Your task to perform on an android device: uninstall "Speedtest by Ookla" Image 0: 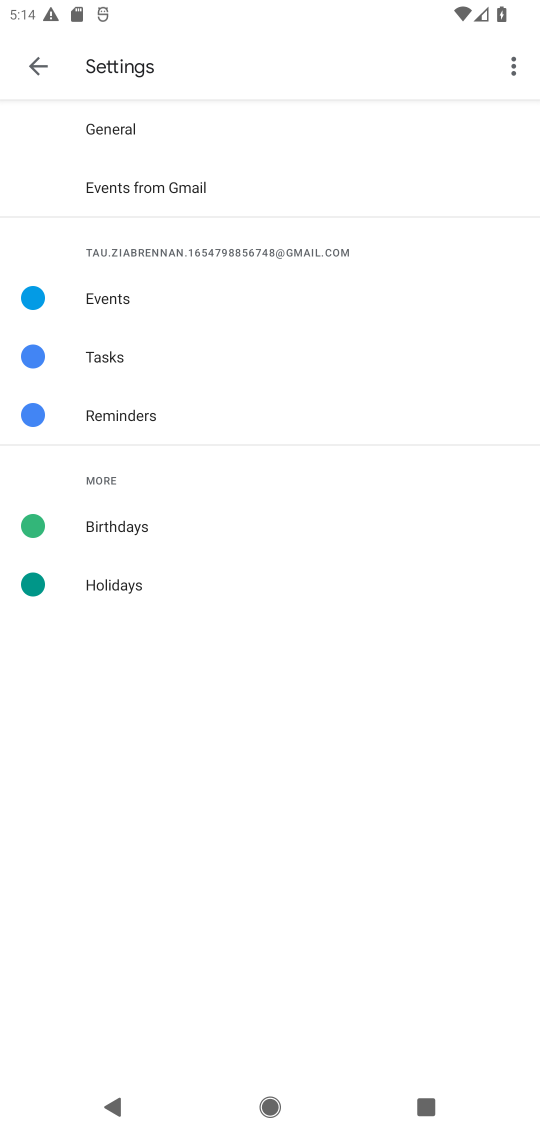
Step 0: press home button
Your task to perform on an android device: uninstall "Speedtest by Ookla" Image 1: 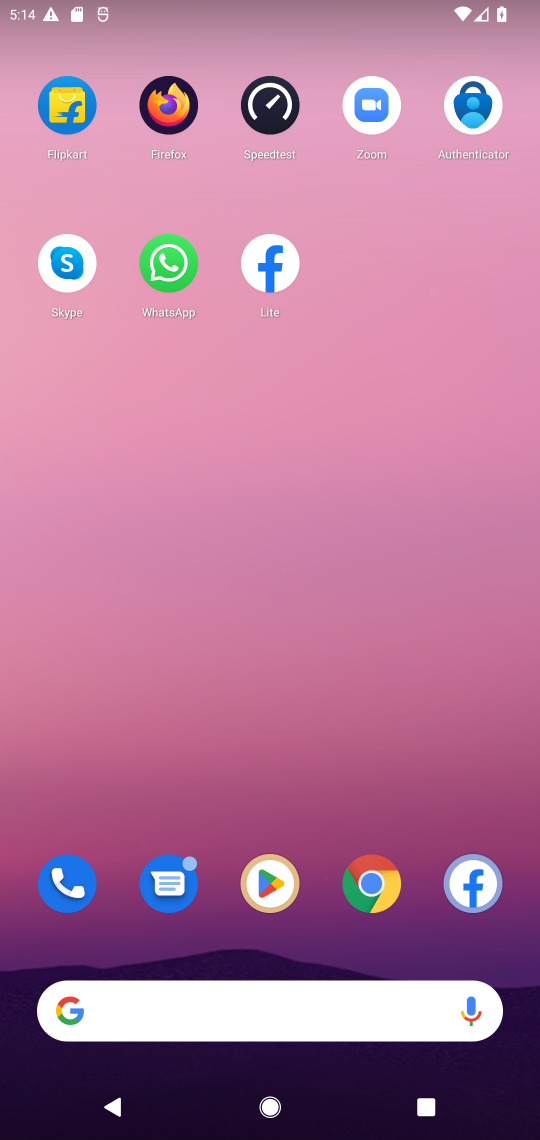
Step 1: drag from (246, 978) to (263, 220)
Your task to perform on an android device: uninstall "Speedtest by Ookla" Image 2: 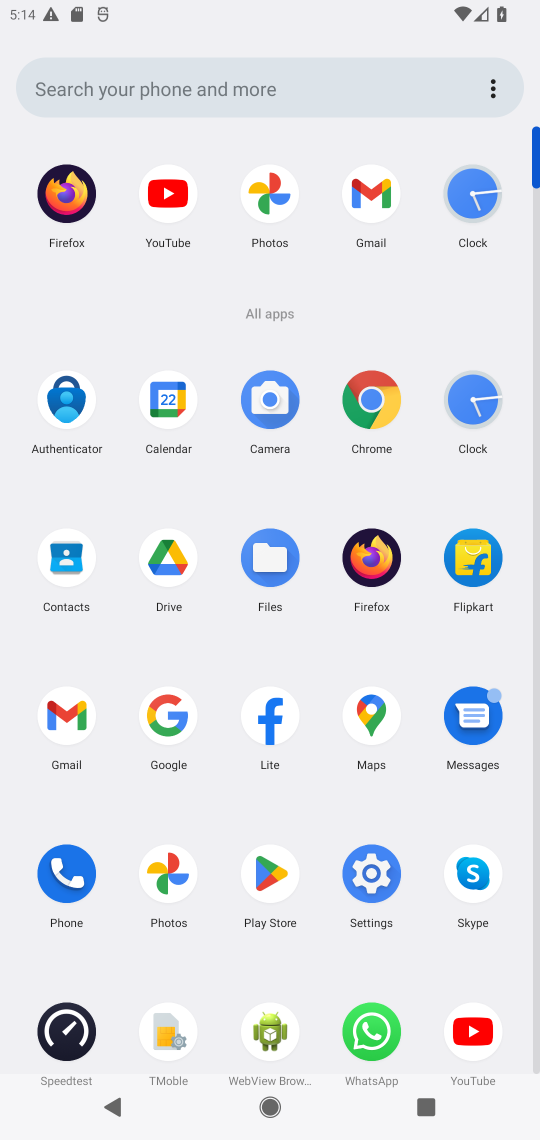
Step 2: click (268, 888)
Your task to perform on an android device: uninstall "Speedtest by Ookla" Image 3: 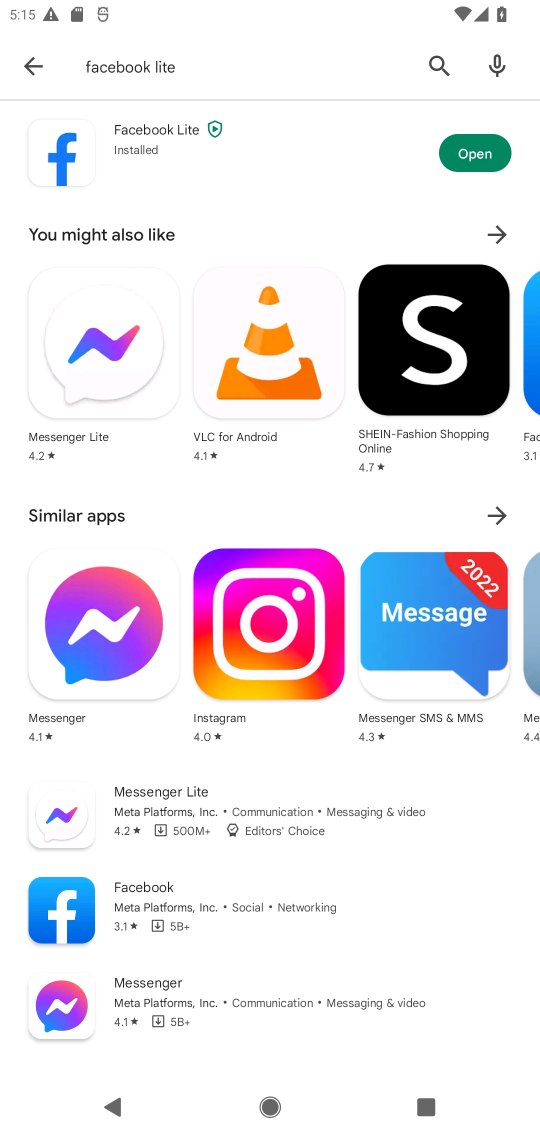
Step 3: click (437, 67)
Your task to perform on an android device: uninstall "Speedtest by Ookla" Image 4: 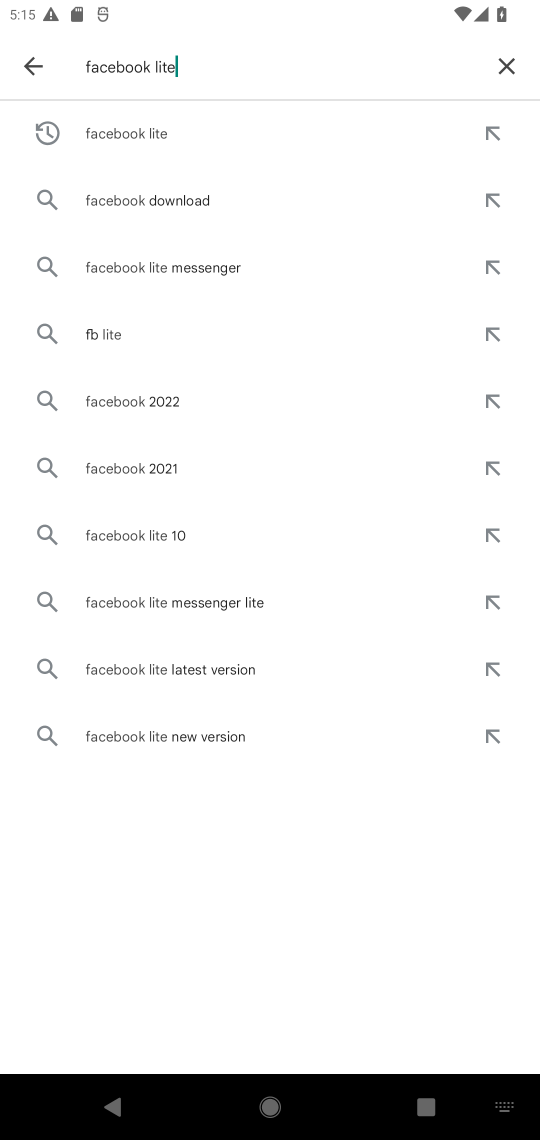
Step 4: click (510, 65)
Your task to perform on an android device: uninstall "Speedtest by Ookla" Image 5: 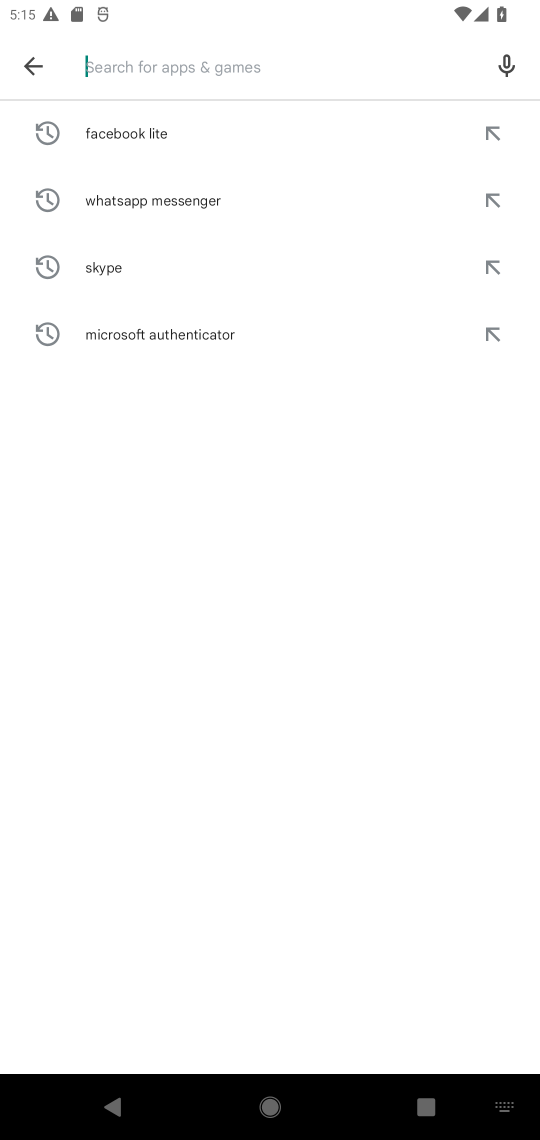
Step 5: type "Speedtest by Ookla"
Your task to perform on an android device: uninstall "Speedtest by Ookla" Image 6: 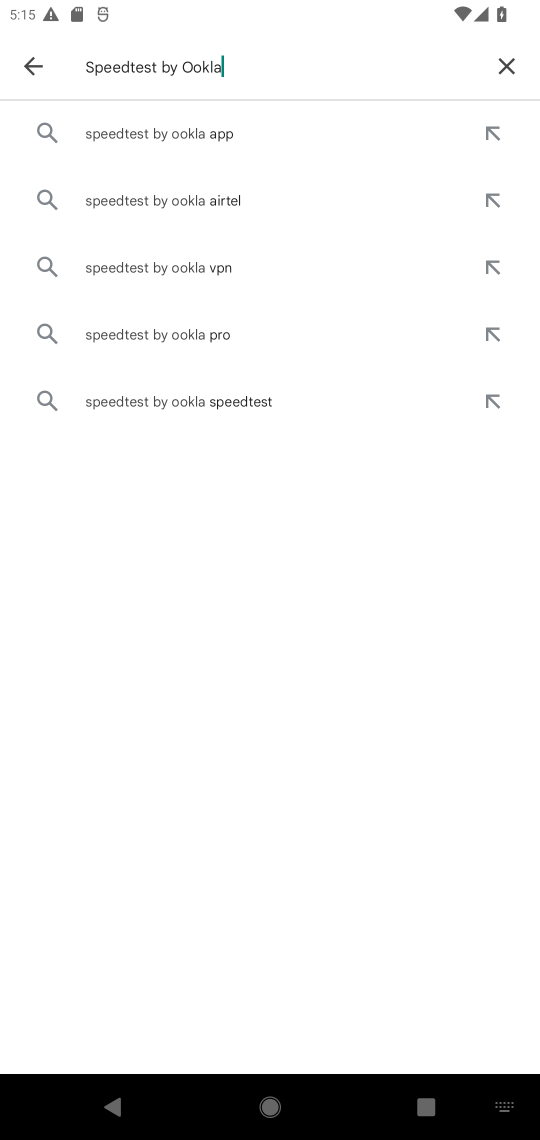
Step 6: click (176, 134)
Your task to perform on an android device: uninstall "Speedtest by Ookla" Image 7: 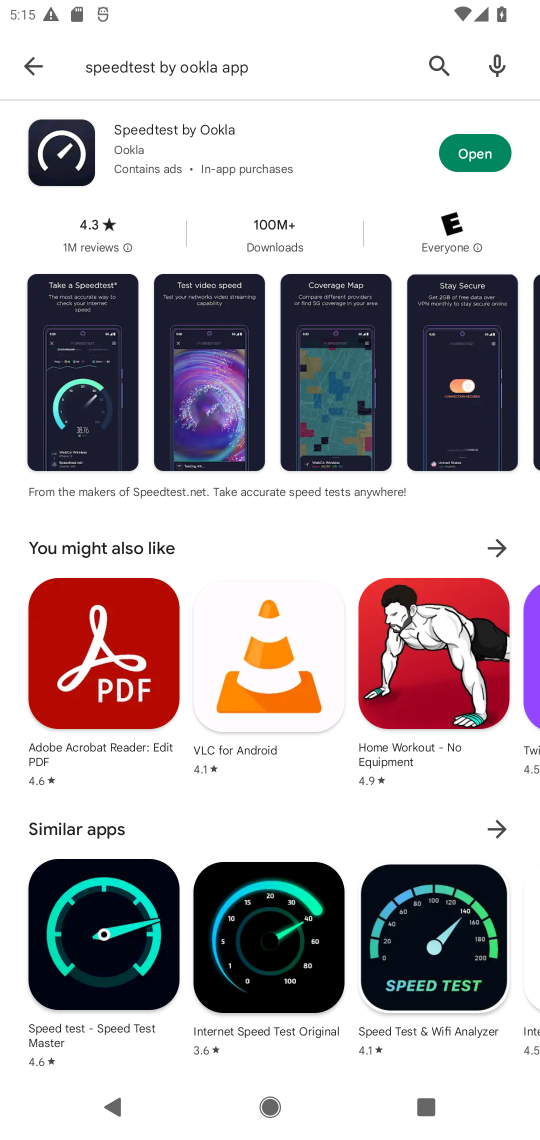
Step 7: click (253, 152)
Your task to perform on an android device: uninstall "Speedtest by Ookla" Image 8: 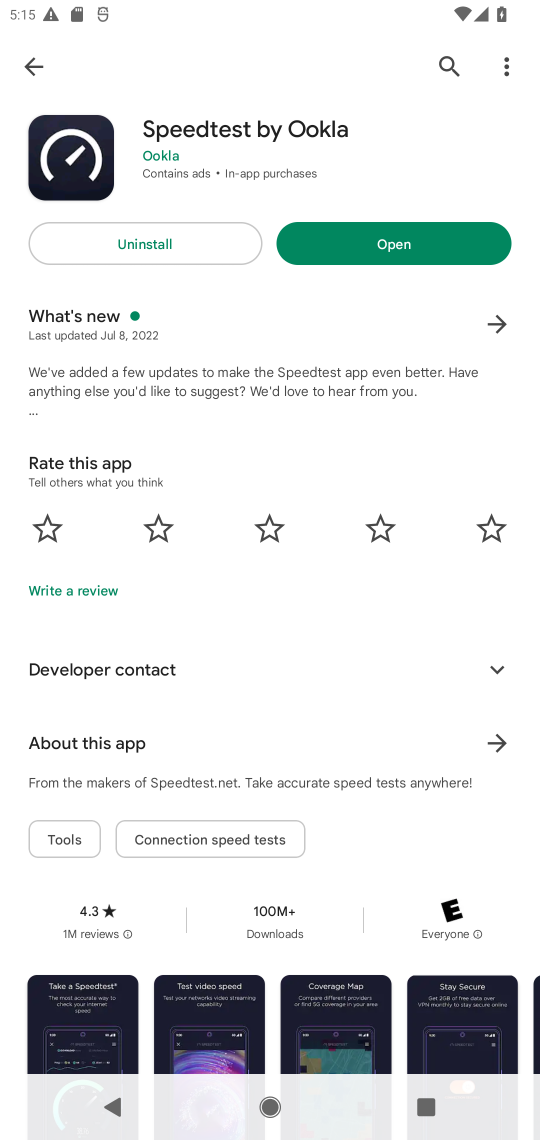
Step 8: click (139, 231)
Your task to perform on an android device: uninstall "Speedtest by Ookla" Image 9: 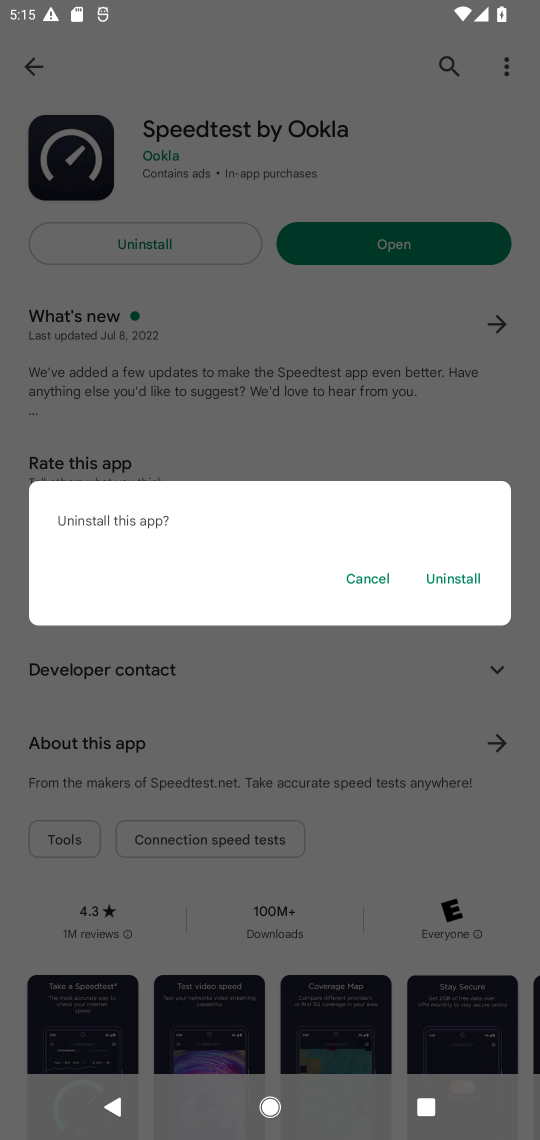
Step 9: click (457, 579)
Your task to perform on an android device: uninstall "Speedtest by Ookla" Image 10: 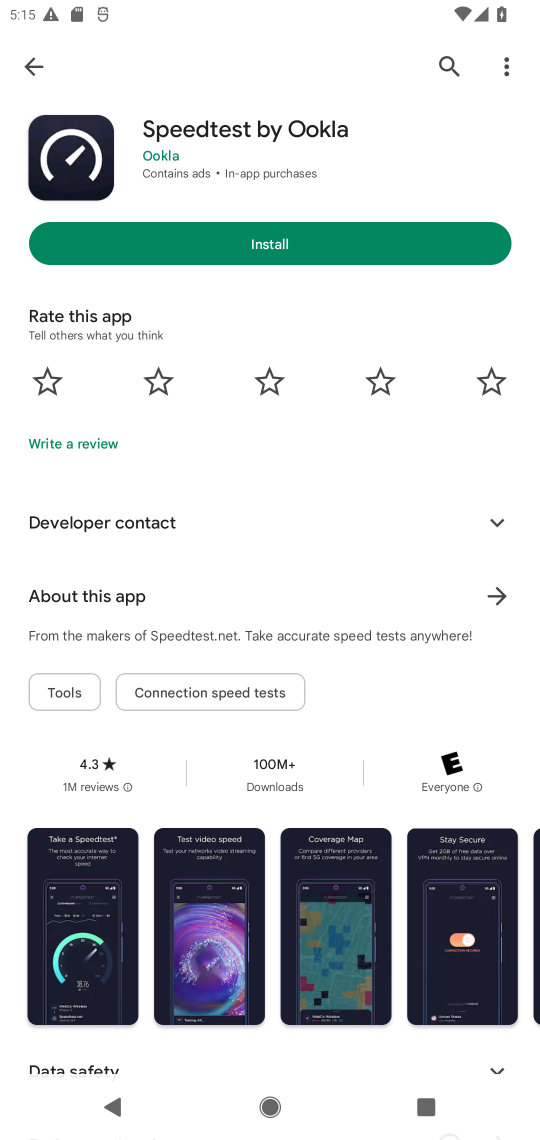
Step 10: task complete